Your task to perform on an android device: Open Youtube and go to "Your channel" Image 0: 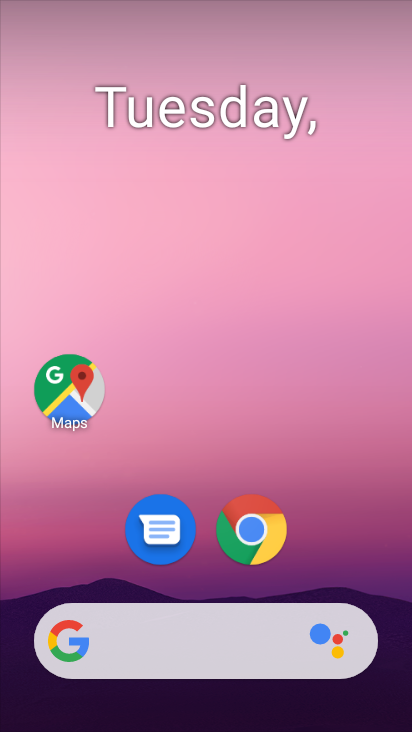
Step 0: press home button
Your task to perform on an android device: Open Youtube and go to "Your channel" Image 1: 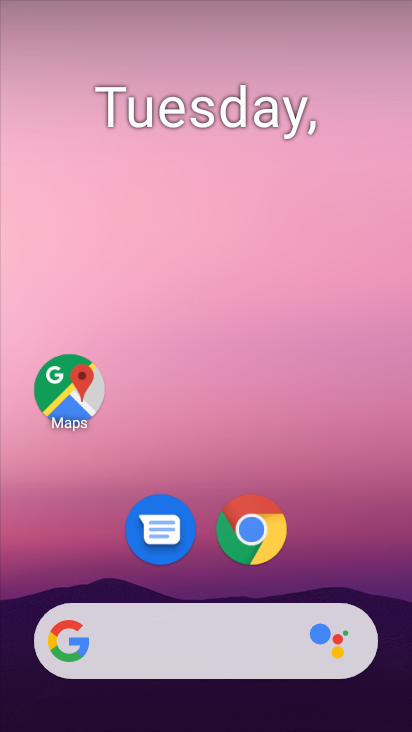
Step 1: drag from (215, 499) to (332, 51)
Your task to perform on an android device: Open Youtube and go to "Your channel" Image 2: 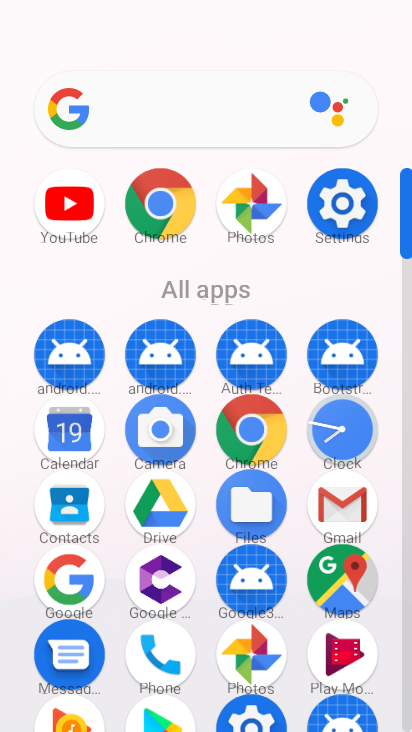
Step 2: click (72, 212)
Your task to perform on an android device: Open Youtube and go to "Your channel" Image 3: 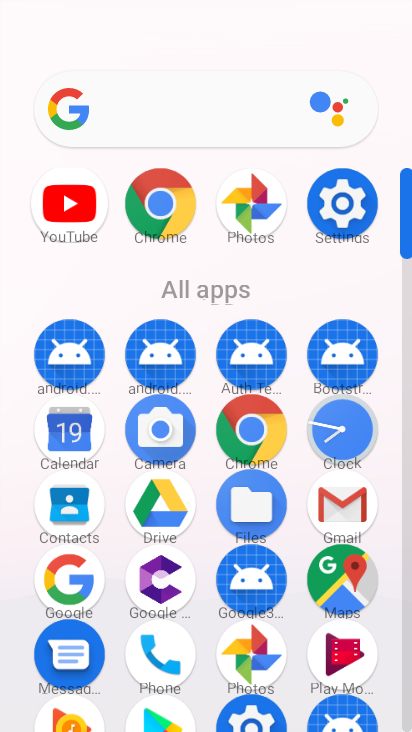
Step 3: click (77, 217)
Your task to perform on an android device: Open Youtube and go to "Your channel" Image 4: 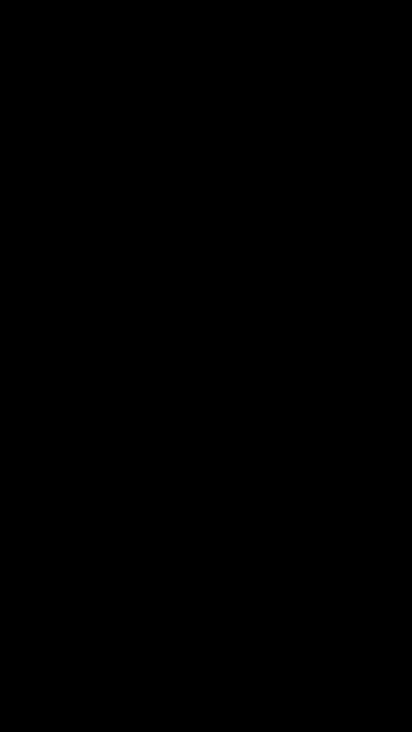
Step 4: task complete